Your task to perform on an android device: Open eBay Image 0: 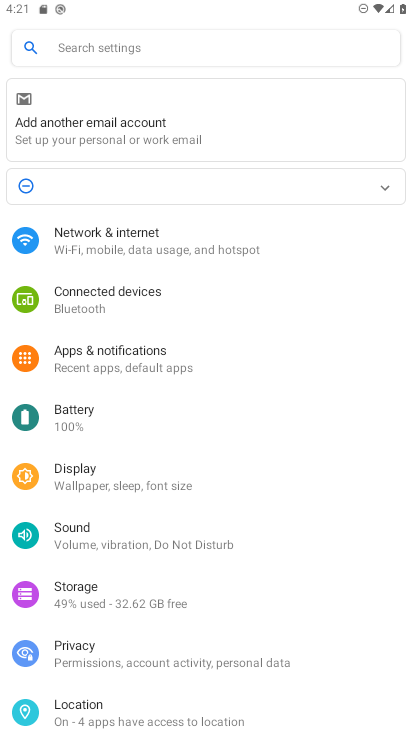
Step 0: press home button
Your task to perform on an android device: Open eBay Image 1: 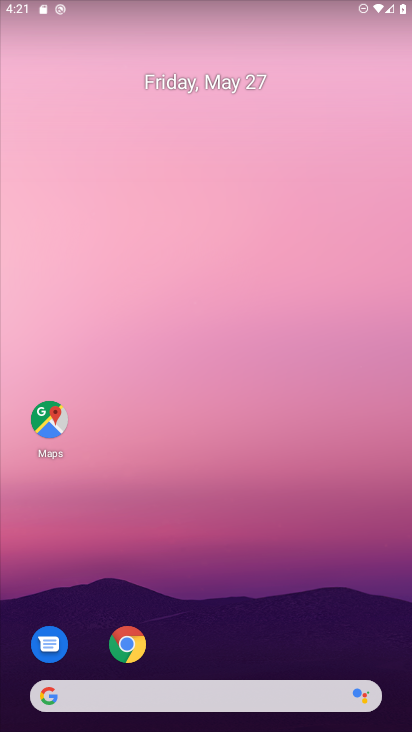
Step 1: click (158, 701)
Your task to perform on an android device: Open eBay Image 2: 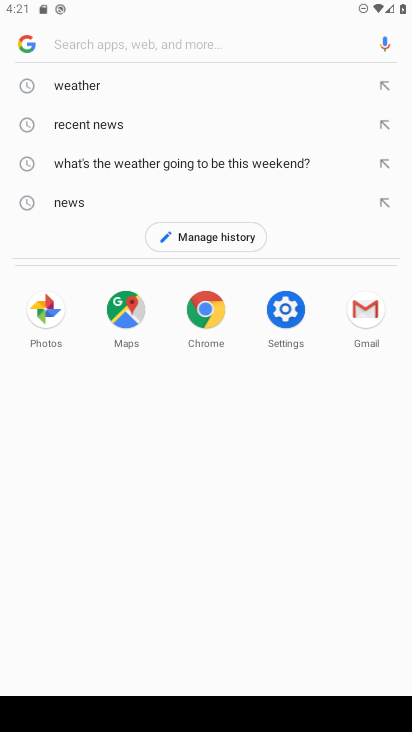
Step 2: type "ebay"
Your task to perform on an android device: Open eBay Image 3: 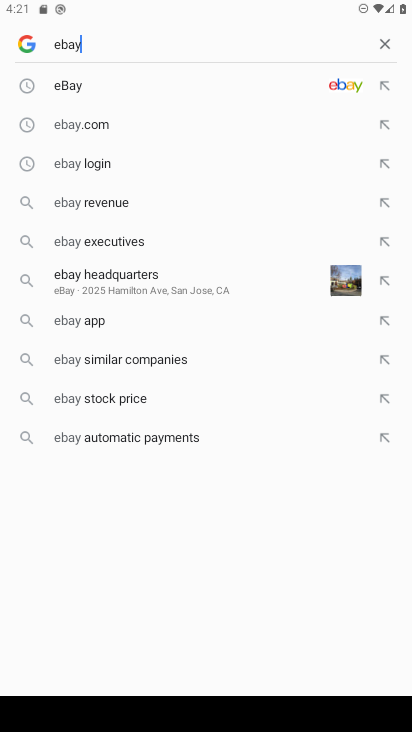
Step 3: click (123, 96)
Your task to perform on an android device: Open eBay Image 4: 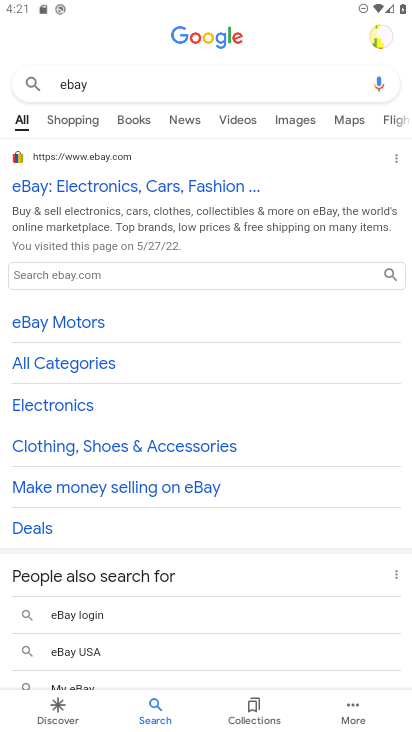
Step 4: task complete